Your task to perform on an android device: uninstall "Google Play Games" Image 0: 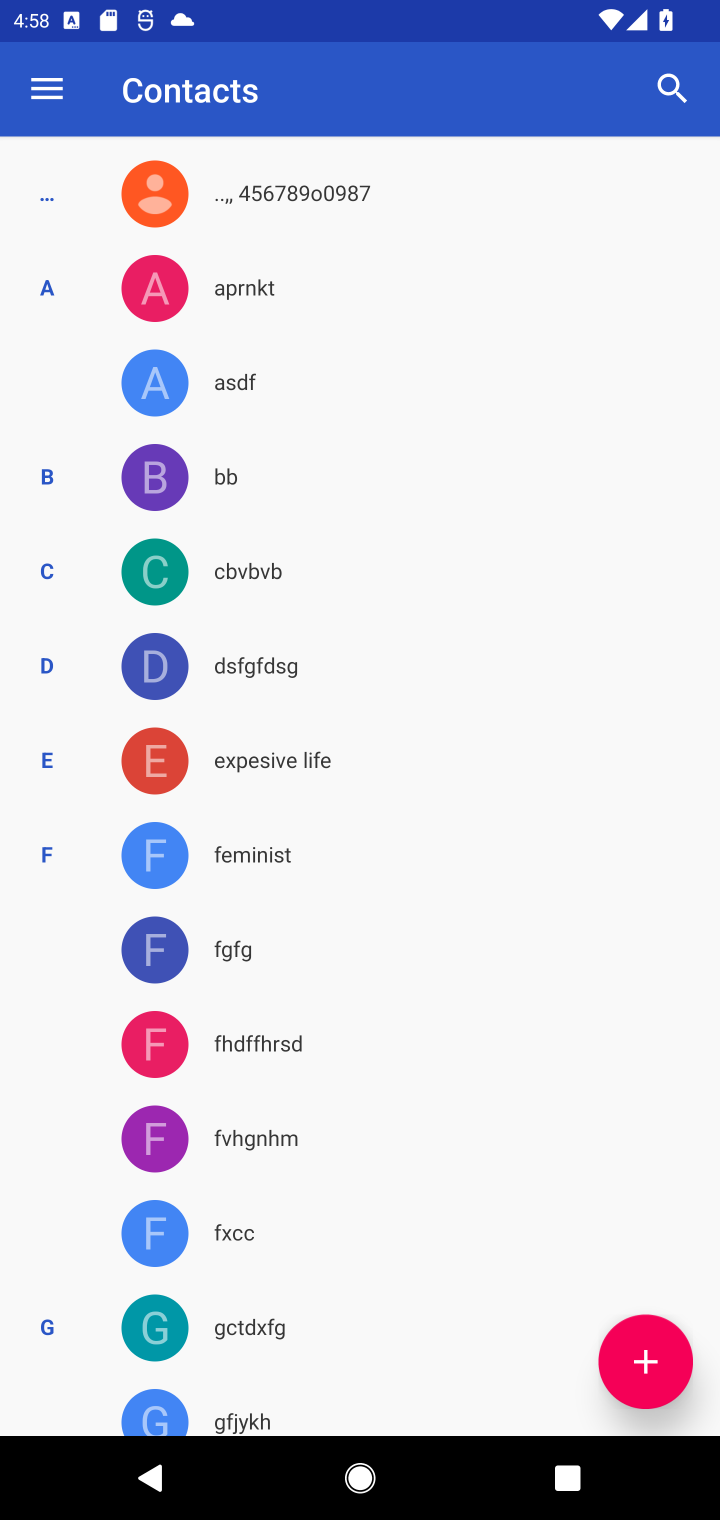
Step 0: press home button
Your task to perform on an android device: uninstall "Google Play Games" Image 1: 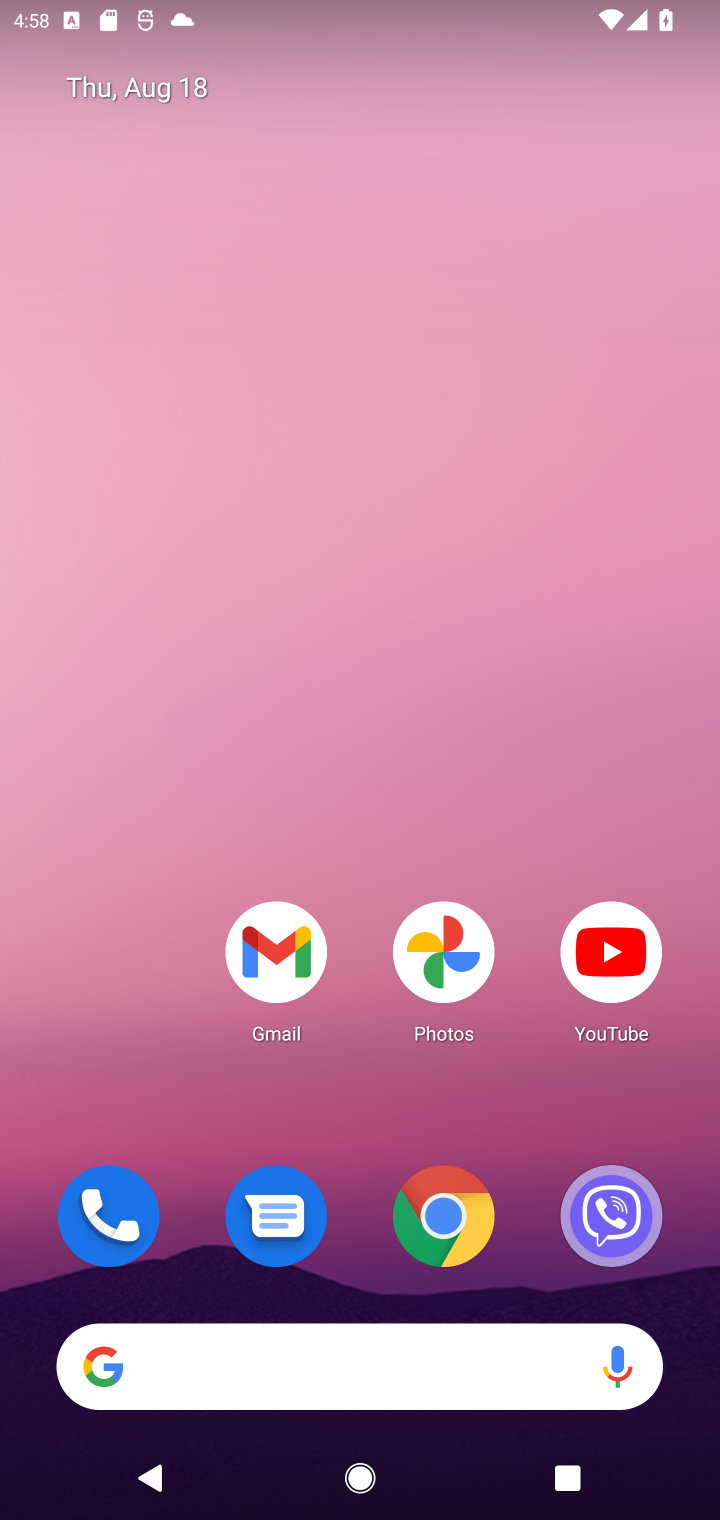
Step 1: drag from (381, 1112) to (446, 256)
Your task to perform on an android device: uninstall "Google Play Games" Image 2: 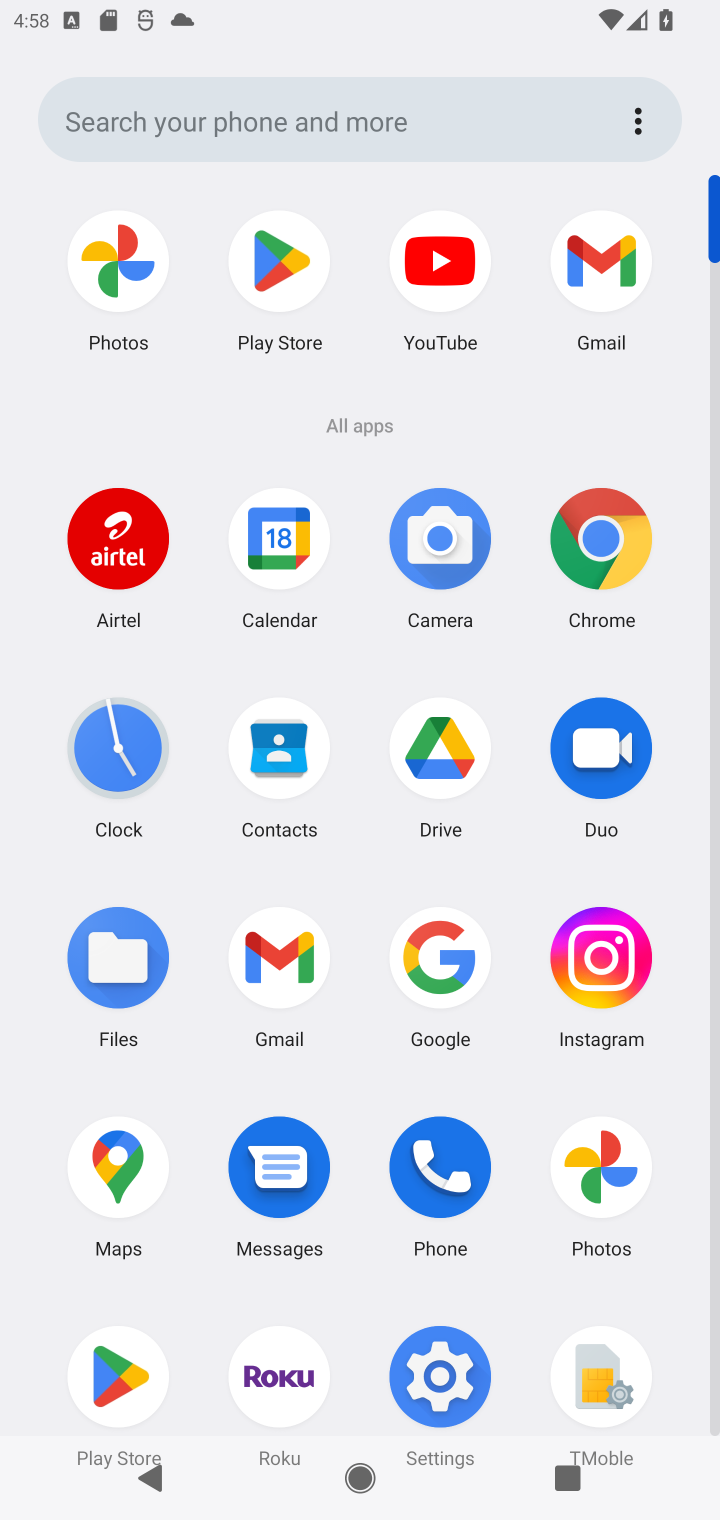
Step 2: click (284, 250)
Your task to perform on an android device: uninstall "Google Play Games" Image 3: 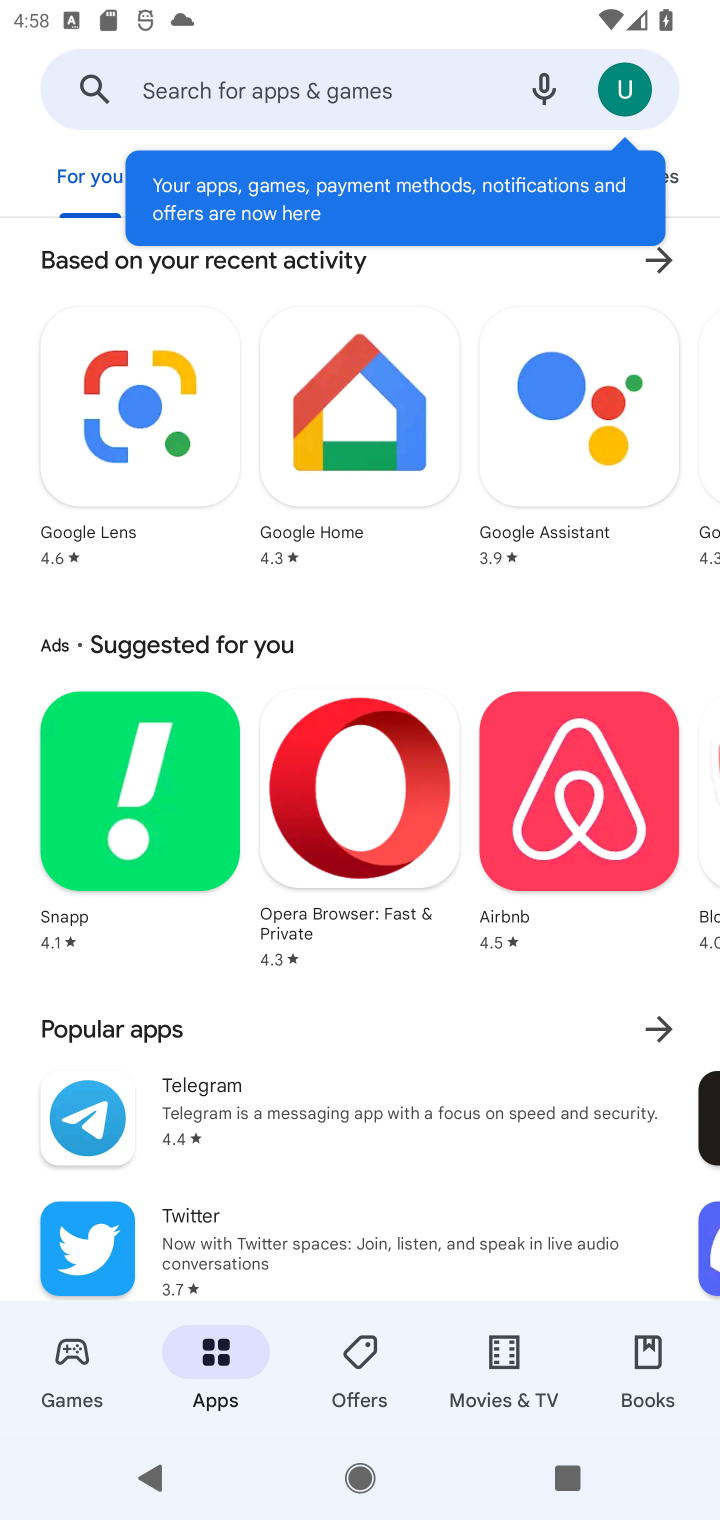
Step 3: click (374, 69)
Your task to perform on an android device: uninstall "Google Play Games" Image 4: 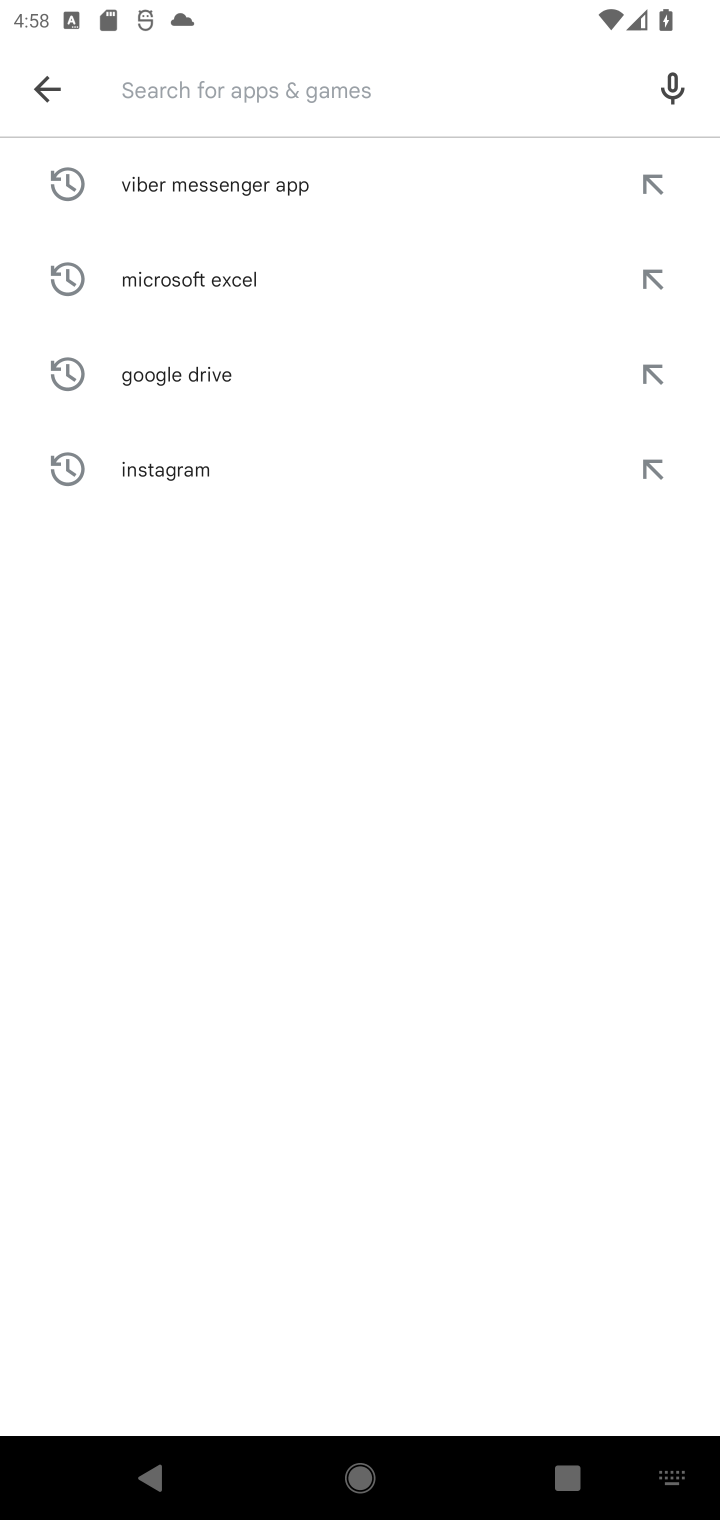
Step 4: type "Google Play Games"
Your task to perform on an android device: uninstall "Google Play Games" Image 5: 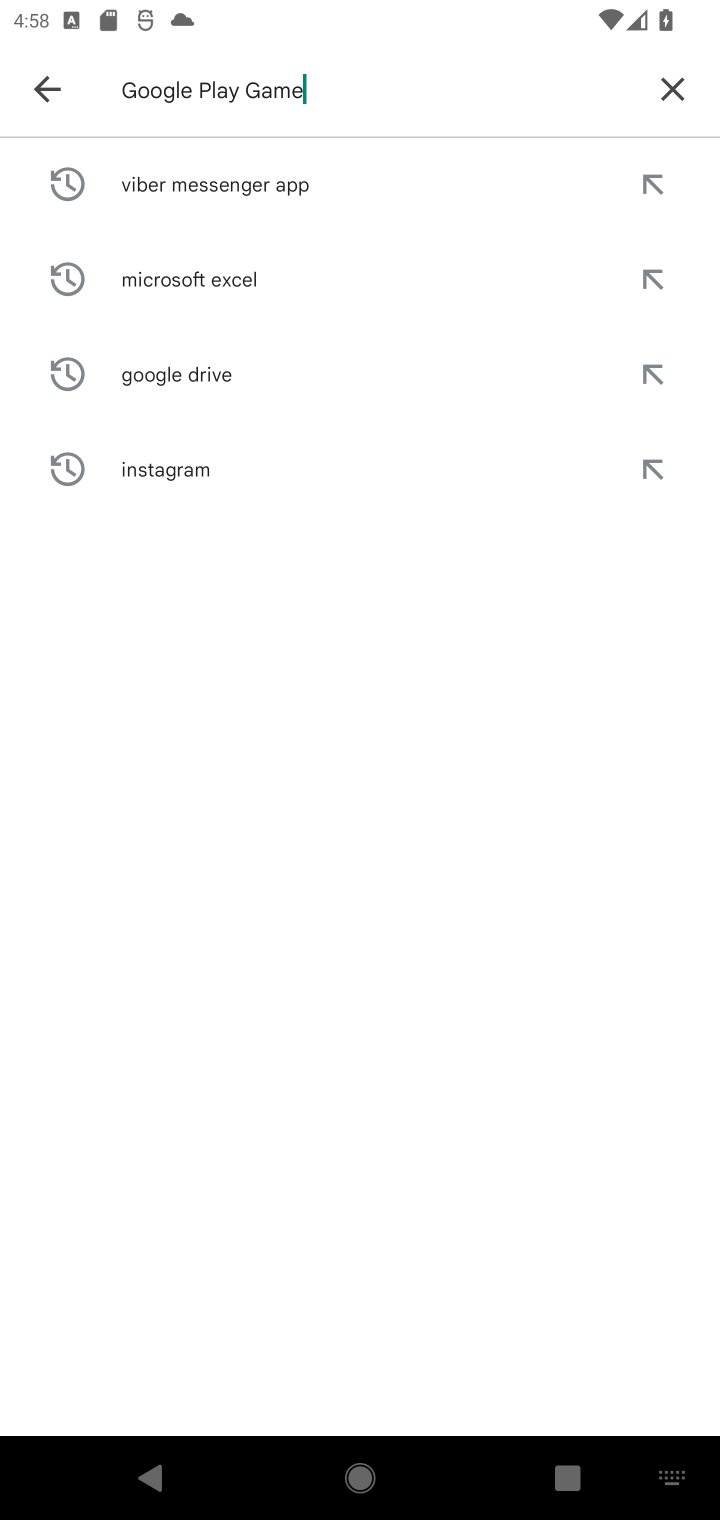
Step 5: type ""
Your task to perform on an android device: uninstall "Google Play Games" Image 6: 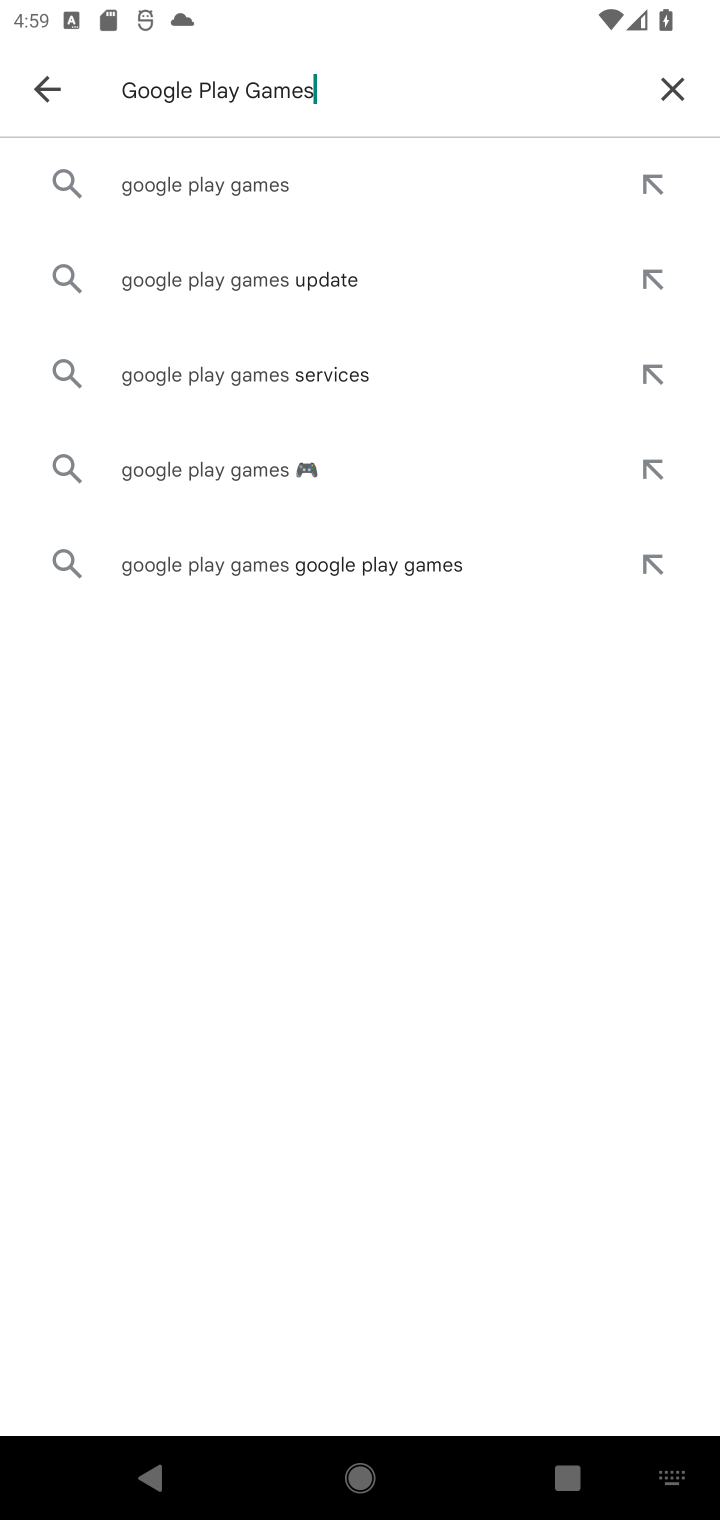
Step 6: click (356, 184)
Your task to perform on an android device: uninstall "Google Play Games" Image 7: 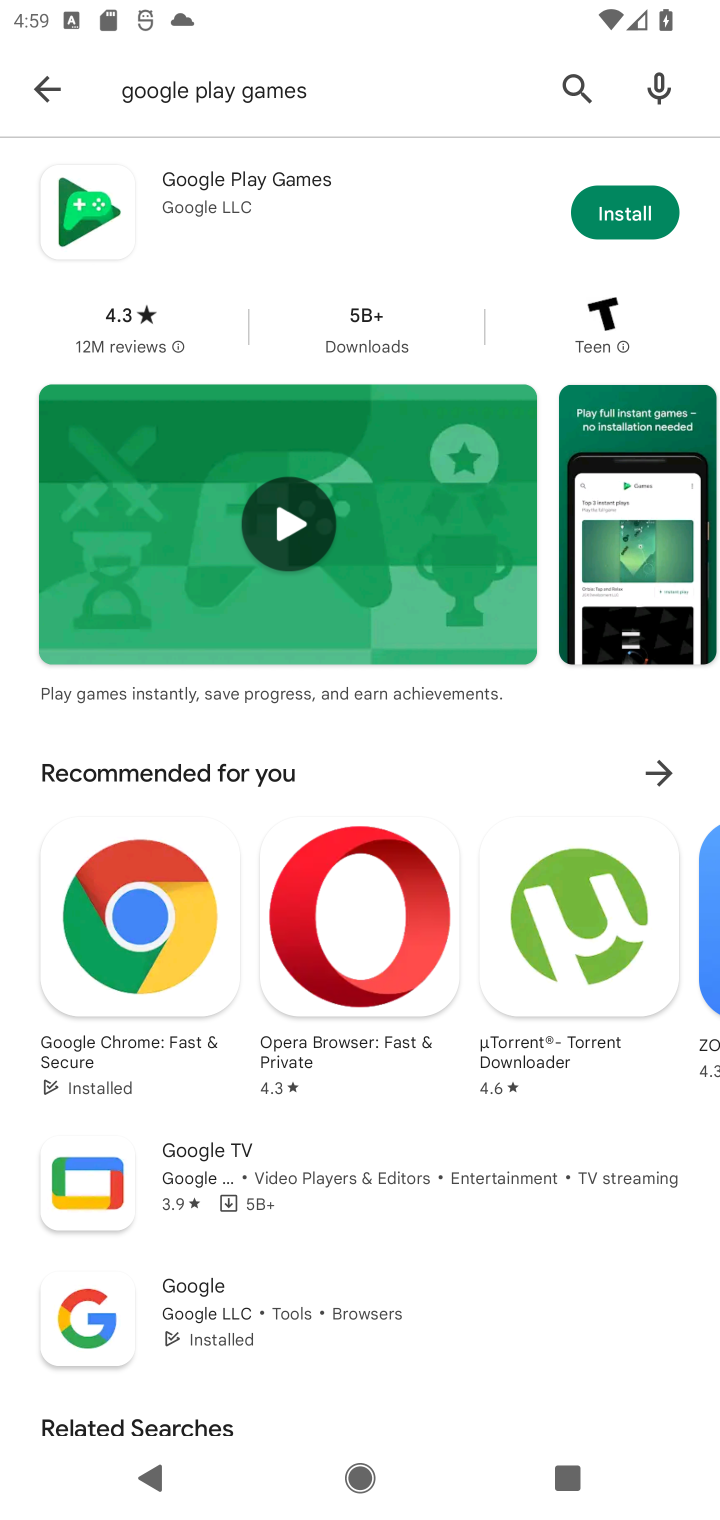
Step 7: click (336, 211)
Your task to perform on an android device: uninstall "Google Play Games" Image 8: 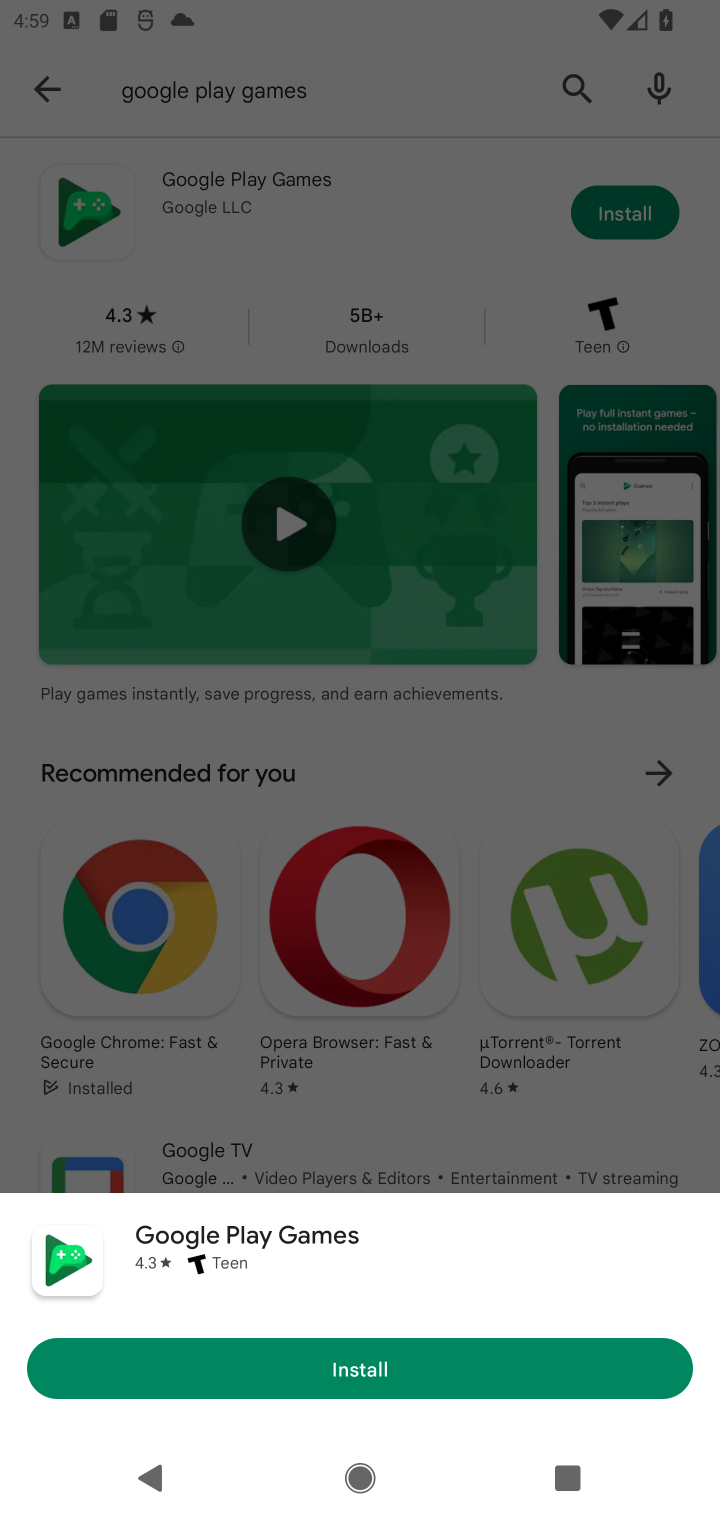
Step 8: task complete